Your task to perform on an android device: uninstall "Lyft - Rideshare, Bikes, Scooters & Transit" Image 0: 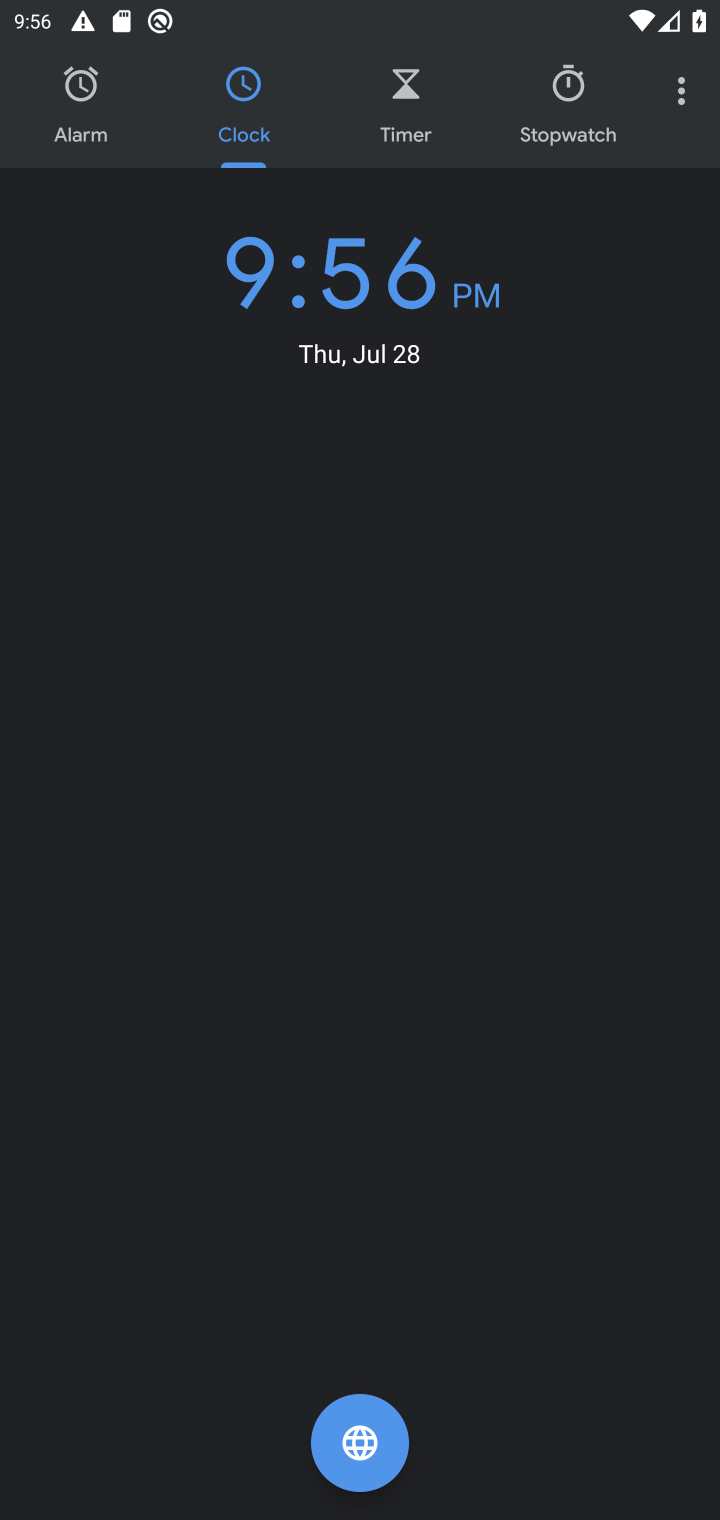
Step 0: press home button
Your task to perform on an android device: uninstall "Lyft - Rideshare, Bikes, Scooters & Transit" Image 1: 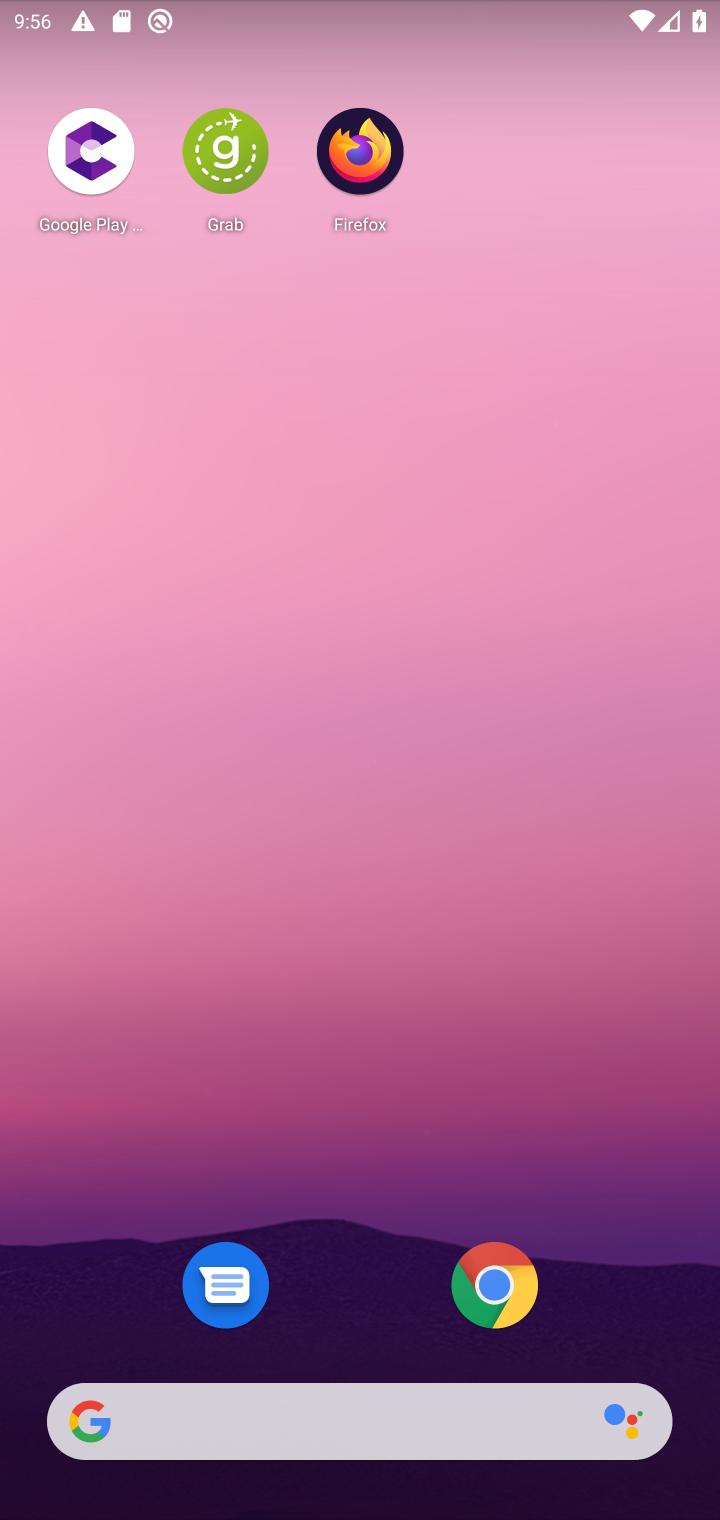
Step 1: drag from (387, 1147) to (456, 2)
Your task to perform on an android device: uninstall "Lyft - Rideshare, Bikes, Scooters & Transit" Image 2: 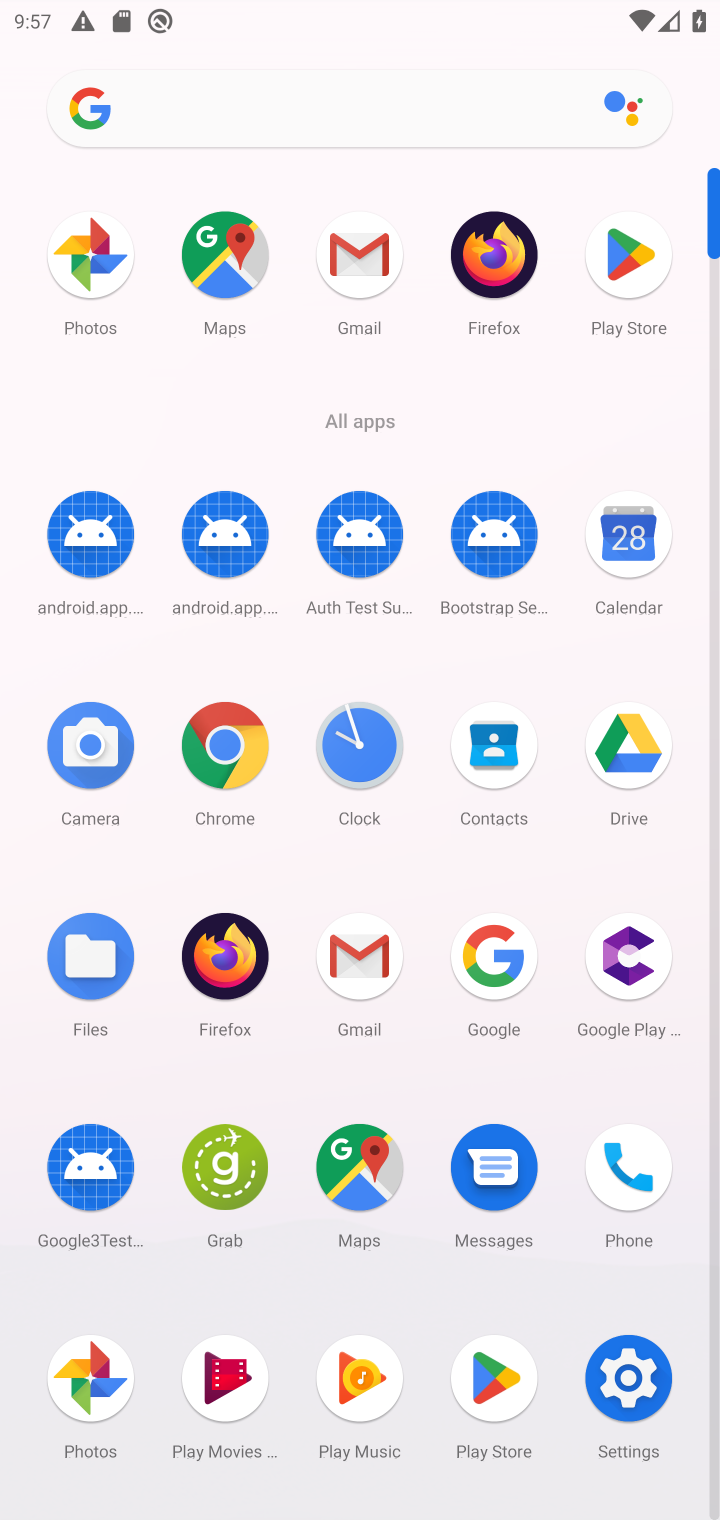
Step 2: click (628, 256)
Your task to perform on an android device: uninstall "Lyft - Rideshare, Bikes, Scooters & Transit" Image 3: 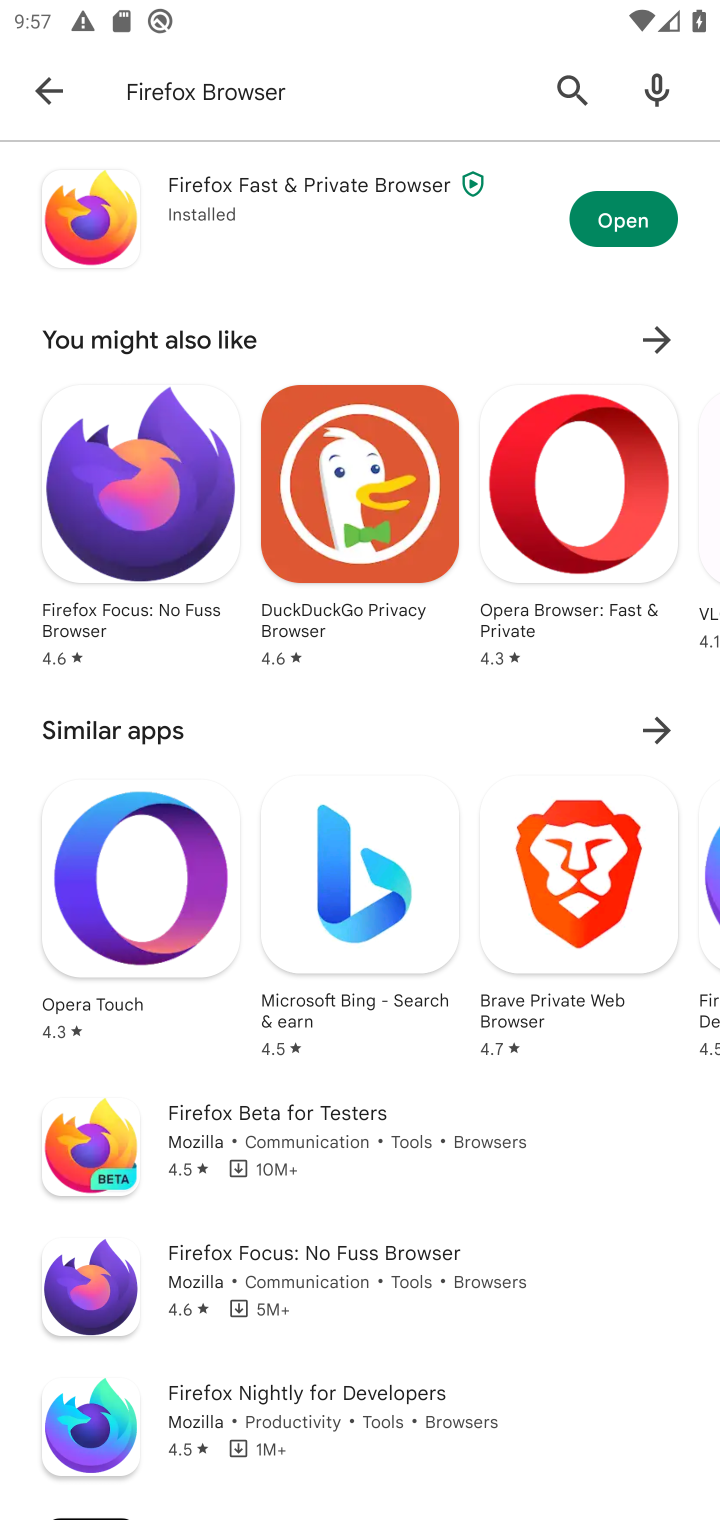
Step 3: click (313, 98)
Your task to perform on an android device: uninstall "Lyft - Rideshare, Bikes, Scooters & Transit" Image 4: 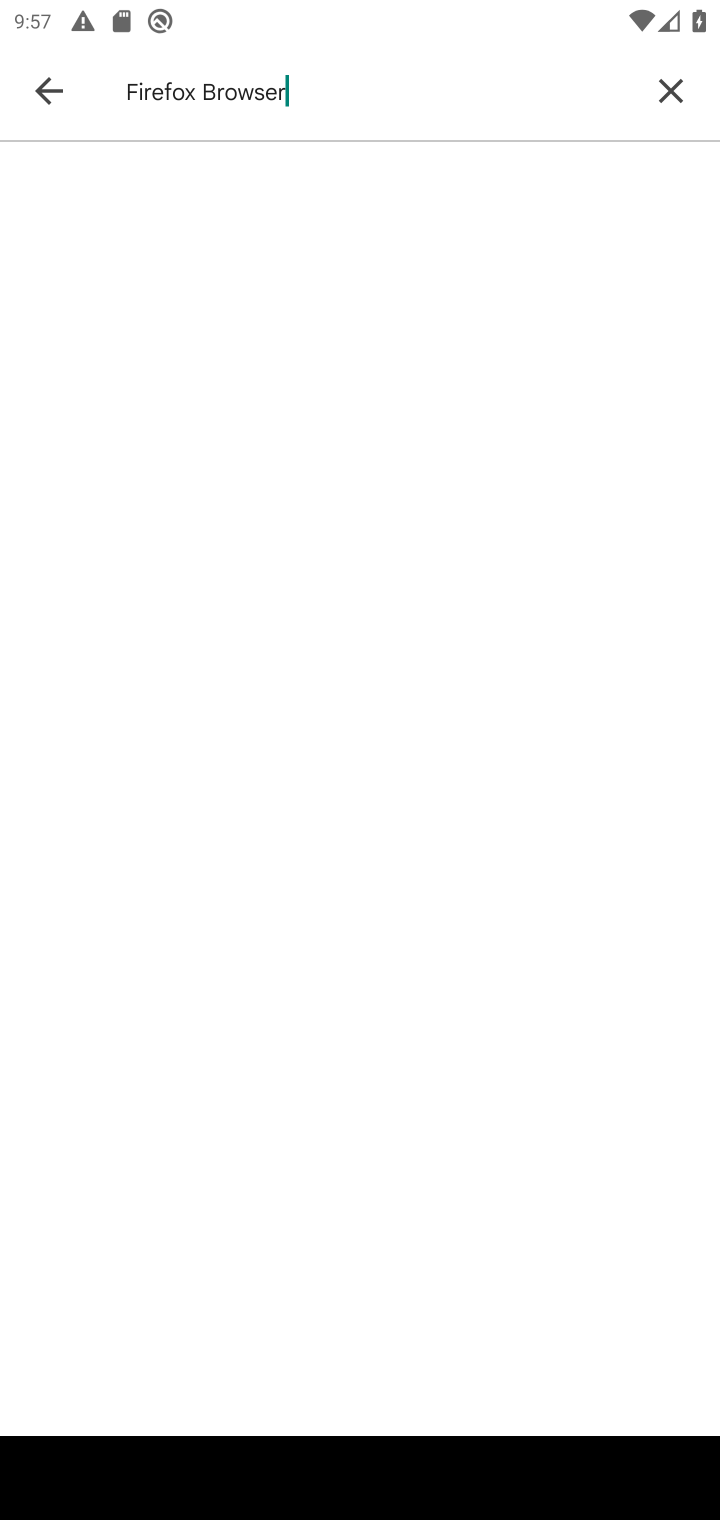
Step 4: click (683, 78)
Your task to perform on an android device: uninstall "Lyft - Rideshare, Bikes, Scooters & Transit" Image 5: 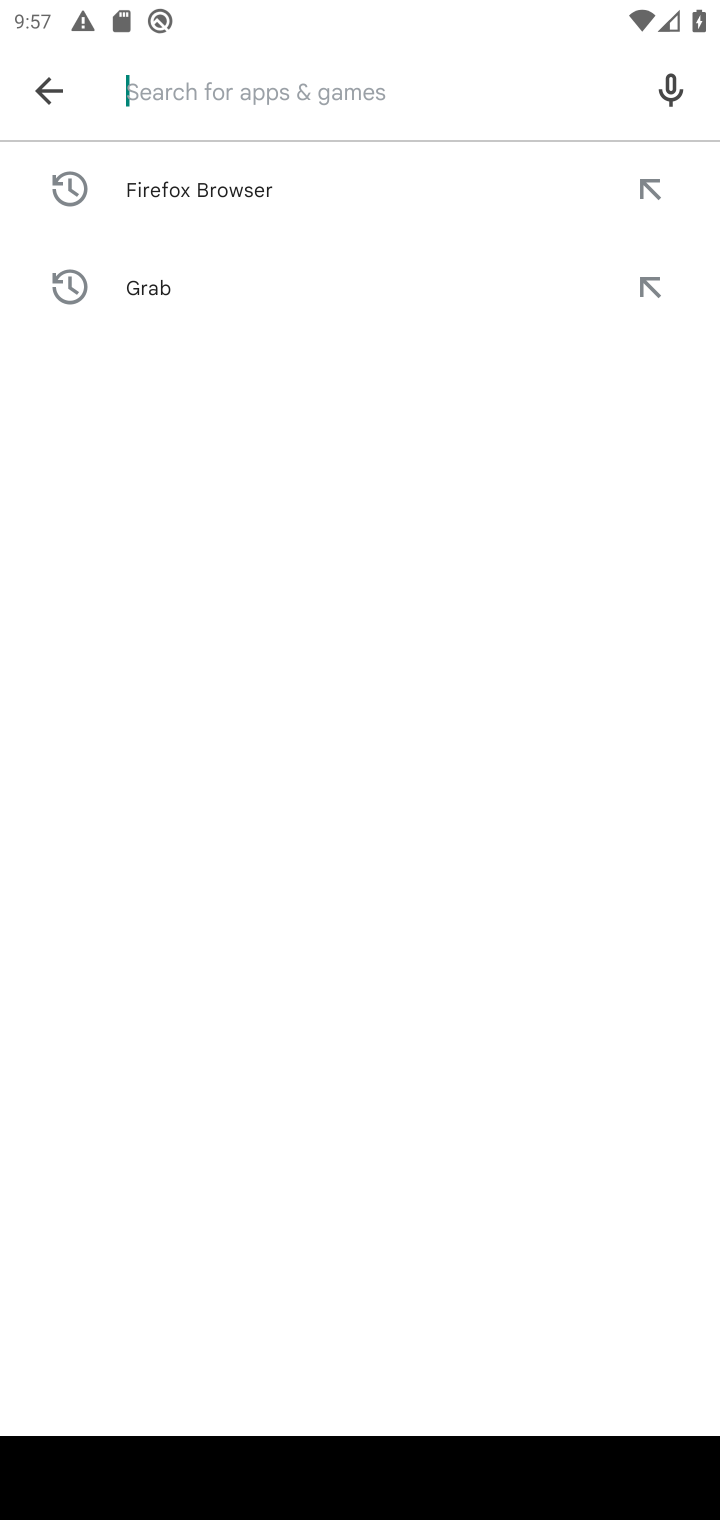
Step 5: type "Lyft"
Your task to perform on an android device: uninstall "Lyft - Rideshare, Bikes, Scooters & Transit" Image 6: 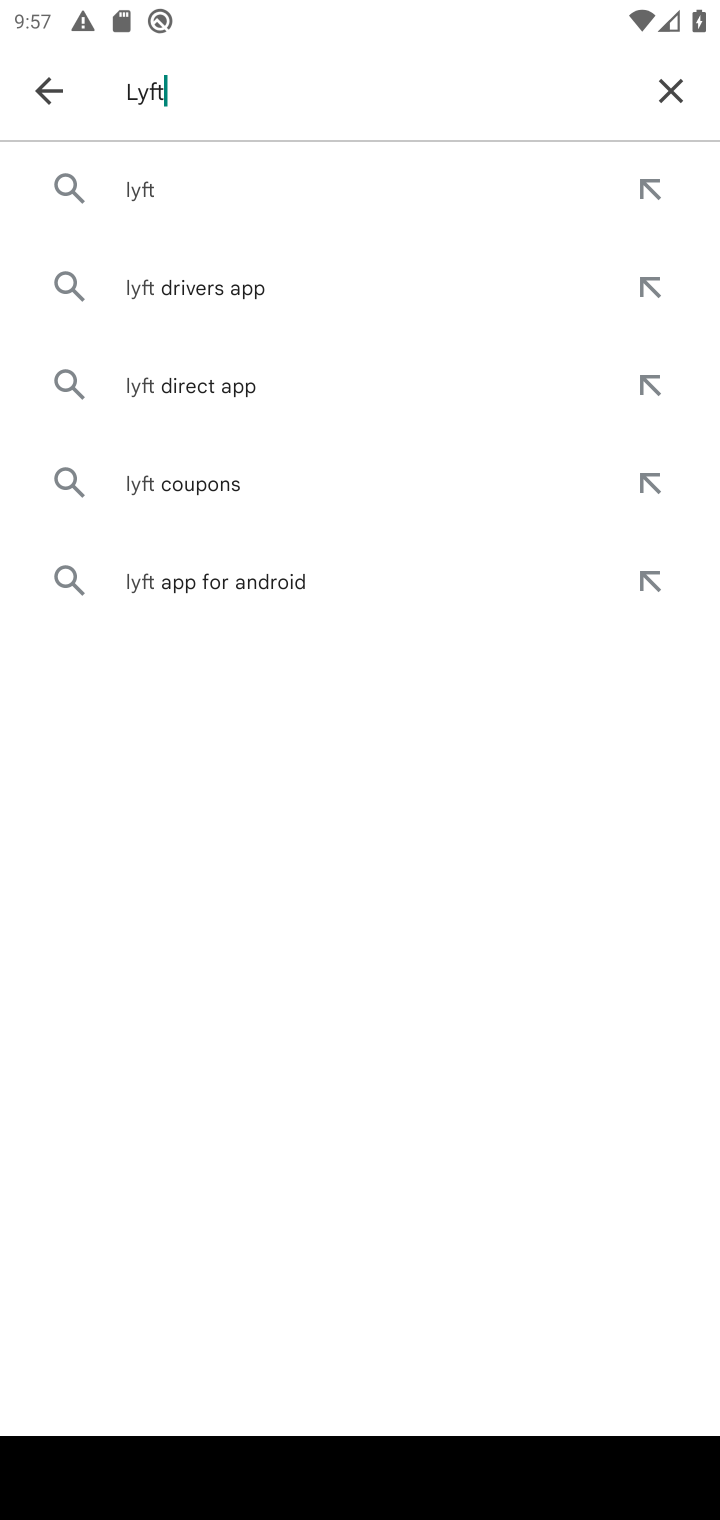
Step 6: press enter
Your task to perform on an android device: uninstall "Lyft - Rideshare, Bikes, Scooters & Transit" Image 7: 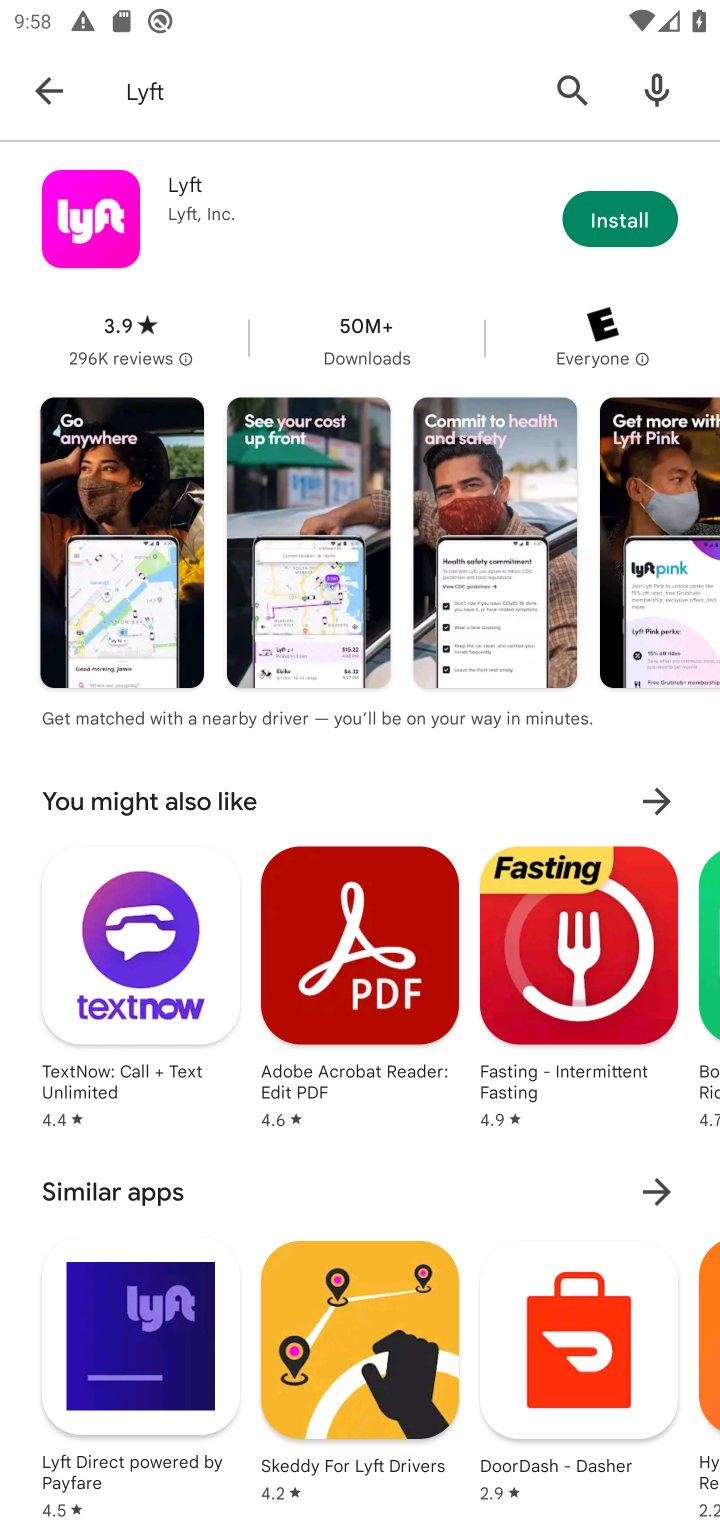
Step 7: task complete